Your task to perform on an android device: Open Reddit.com Image 0: 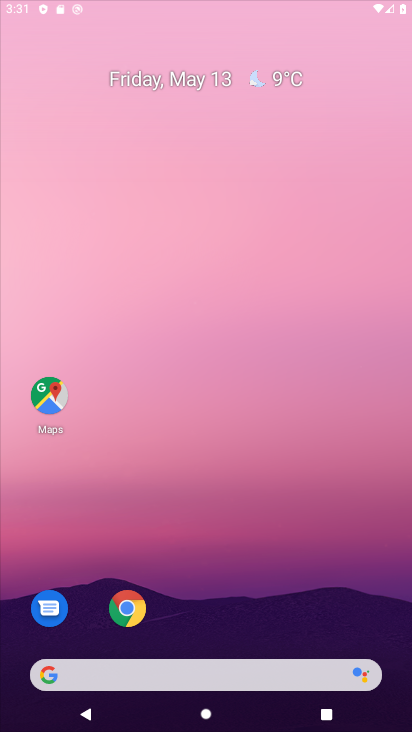
Step 0: click (179, 271)
Your task to perform on an android device: Open Reddit.com Image 1: 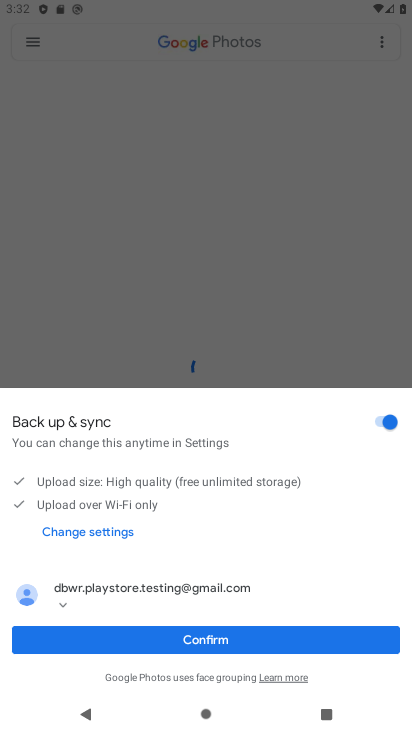
Step 1: press home button
Your task to perform on an android device: Open Reddit.com Image 2: 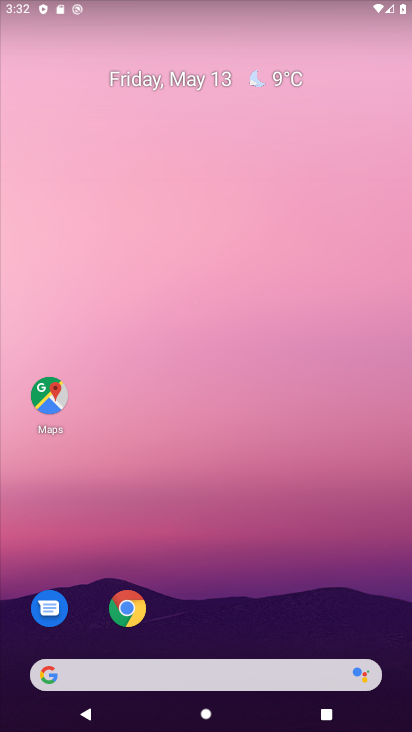
Step 2: drag from (188, 294) to (188, 240)
Your task to perform on an android device: Open Reddit.com Image 3: 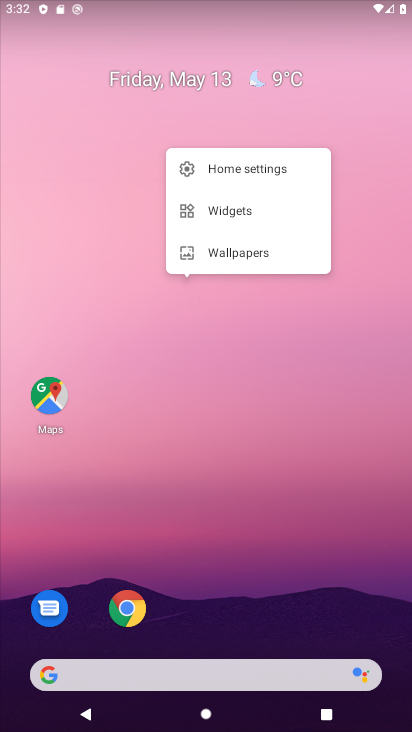
Step 3: drag from (236, 649) to (208, 248)
Your task to perform on an android device: Open Reddit.com Image 4: 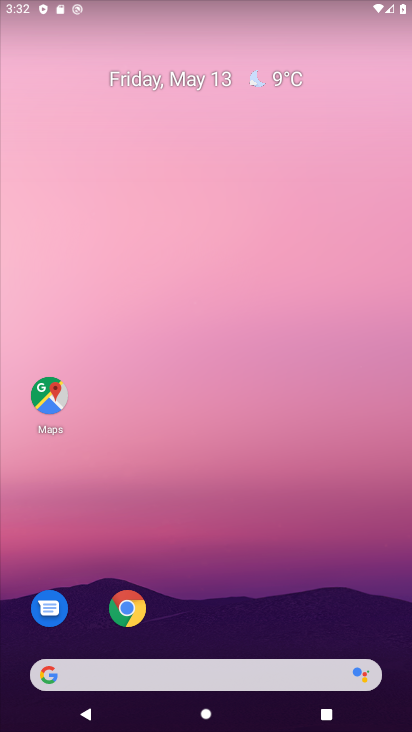
Step 4: drag from (164, 647) to (142, 213)
Your task to perform on an android device: Open Reddit.com Image 5: 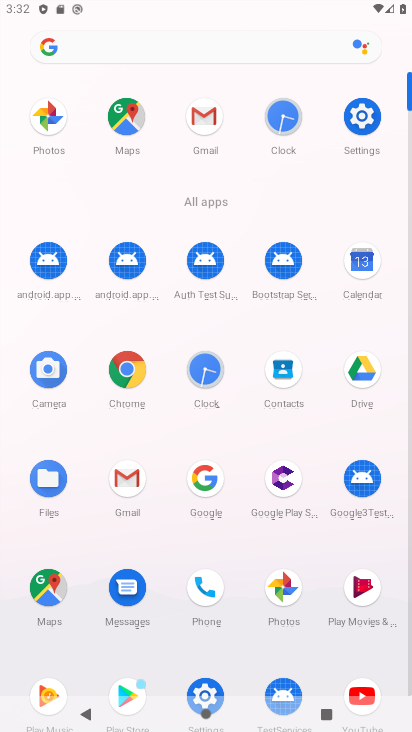
Step 5: click (205, 477)
Your task to perform on an android device: Open Reddit.com Image 6: 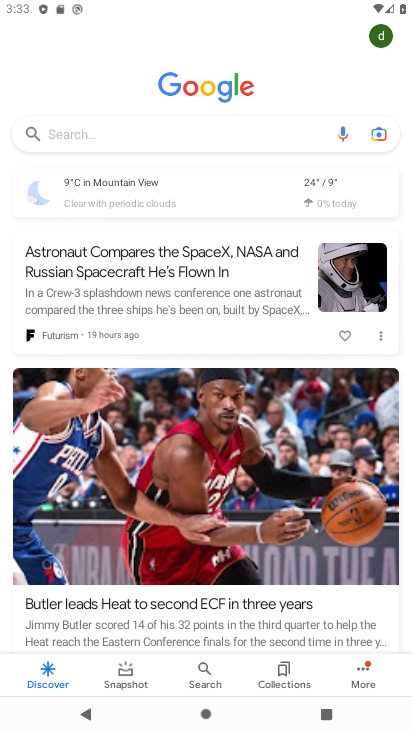
Step 6: click (152, 142)
Your task to perform on an android device: Open Reddit.com Image 7: 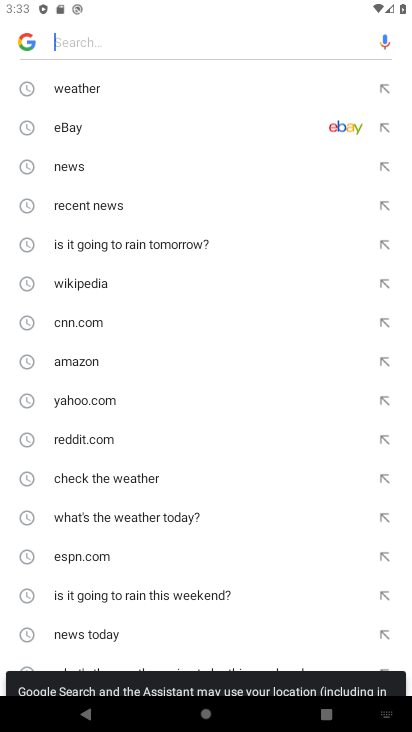
Step 7: drag from (143, 638) to (136, 270)
Your task to perform on an android device: Open Reddit.com Image 8: 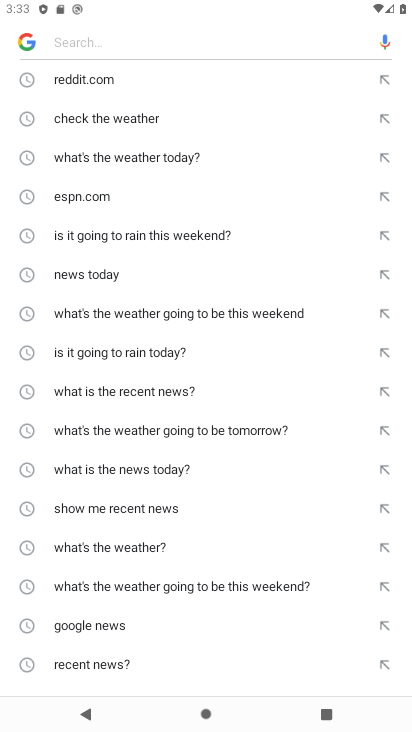
Step 8: drag from (125, 637) to (147, 273)
Your task to perform on an android device: Open Reddit.com Image 9: 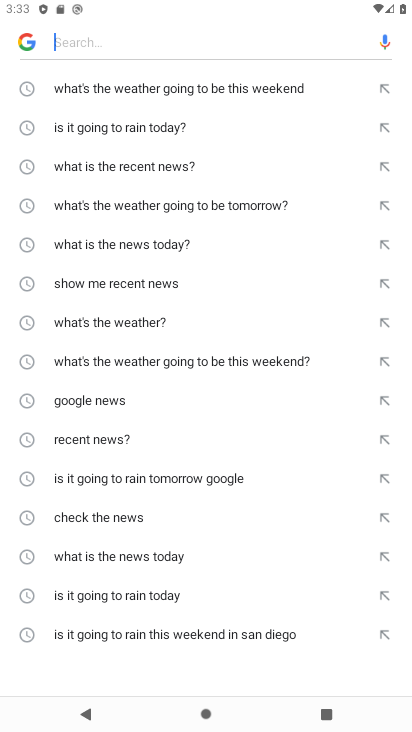
Step 9: drag from (136, 204) to (136, 542)
Your task to perform on an android device: Open Reddit.com Image 10: 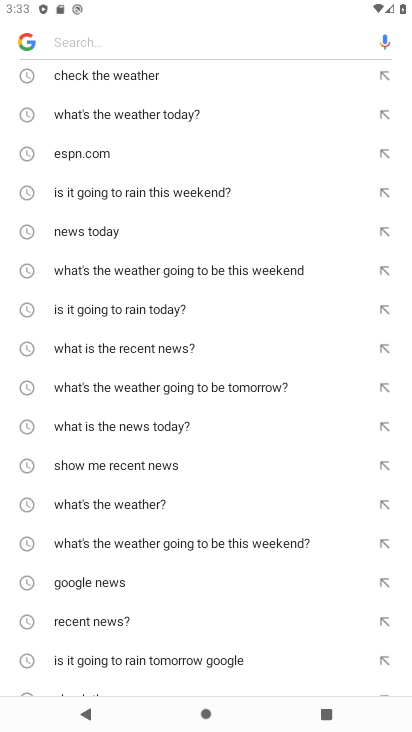
Step 10: drag from (115, 186) to (115, 483)
Your task to perform on an android device: Open Reddit.com Image 11: 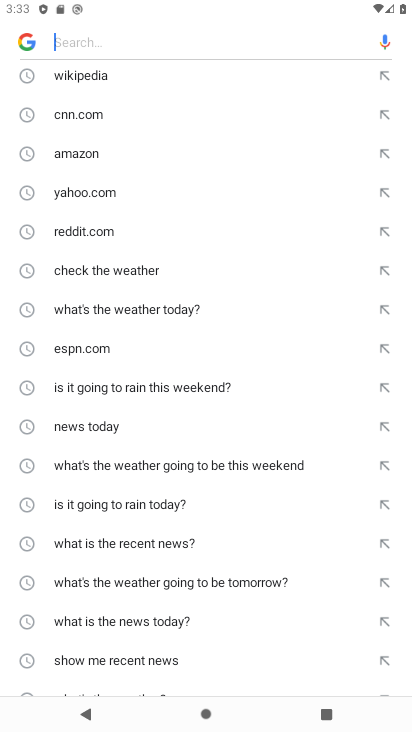
Step 11: click (84, 225)
Your task to perform on an android device: Open Reddit.com Image 12: 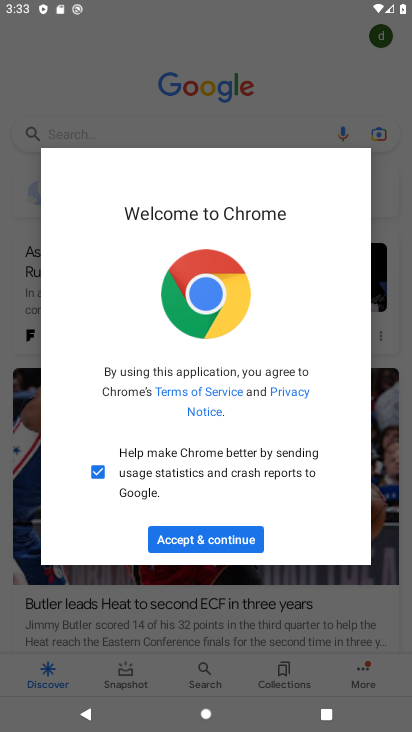
Step 12: drag from (179, 537) to (259, 537)
Your task to perform on an android device: Open Reddit.com Image 13: 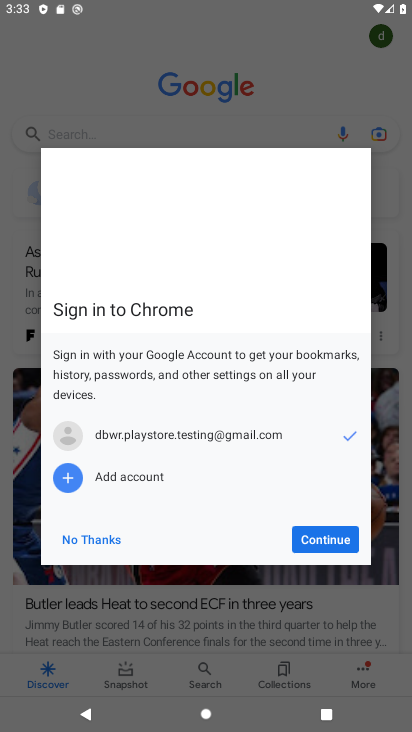
Step 13: click (334, 533)
Your task to perform on an android device: Open Reddit.com Image 14: 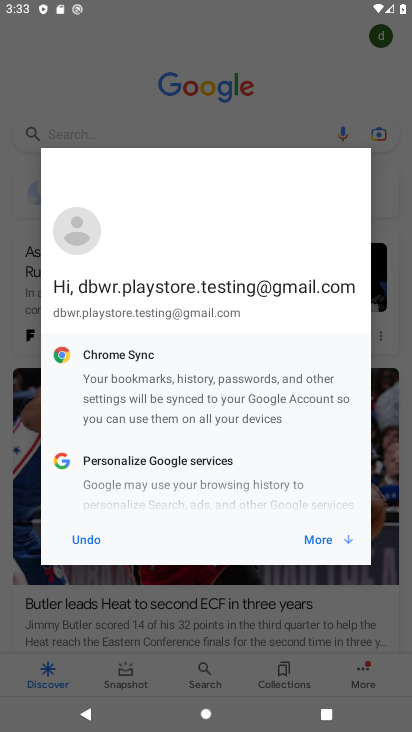
Step 14: click (324, 544)
Your task to perform on an android device: Open Reddit.com Image 15: 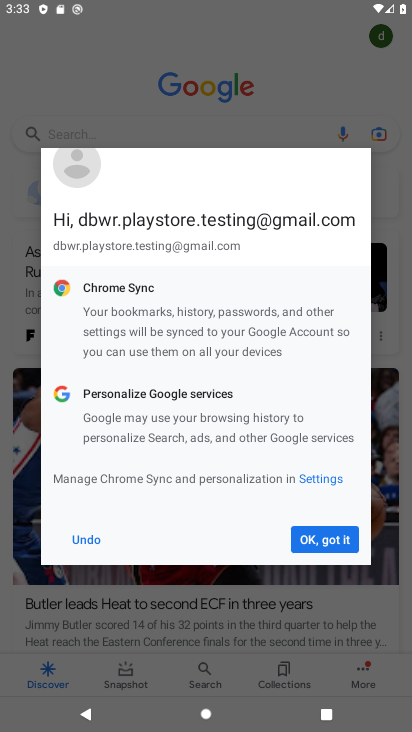
Step 15: task complete